Your task to perform on an android device: open device folders in google photos Image 0: 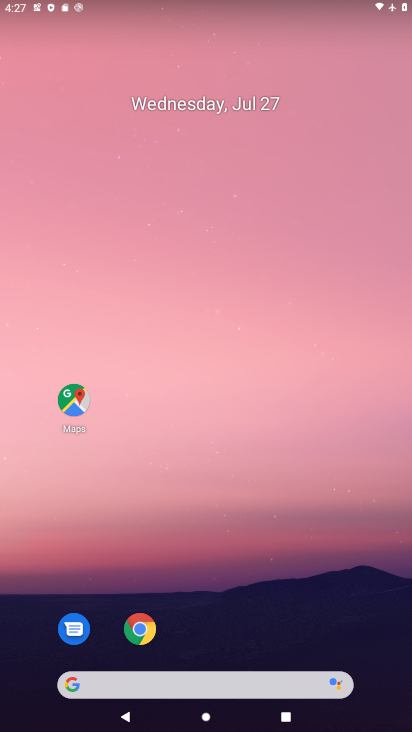
Step 0: drag from (247, 644) to (122, 131)
Your task to perform on an android device: open device folders in google photos Image 1: 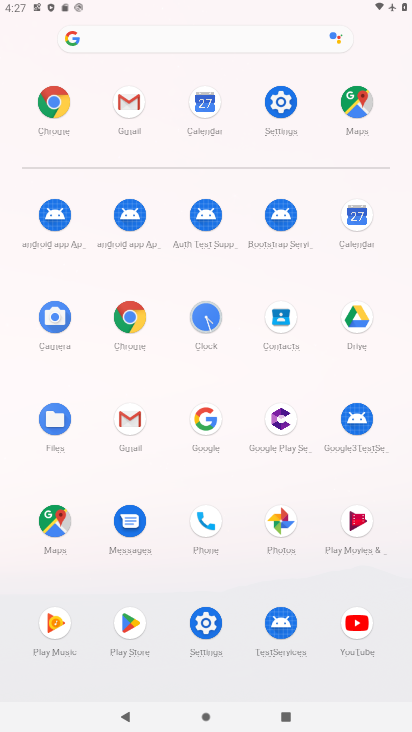
Step 1: click (271, 530)
Your task to perform on an android device: open device folders in google photos Image 2: 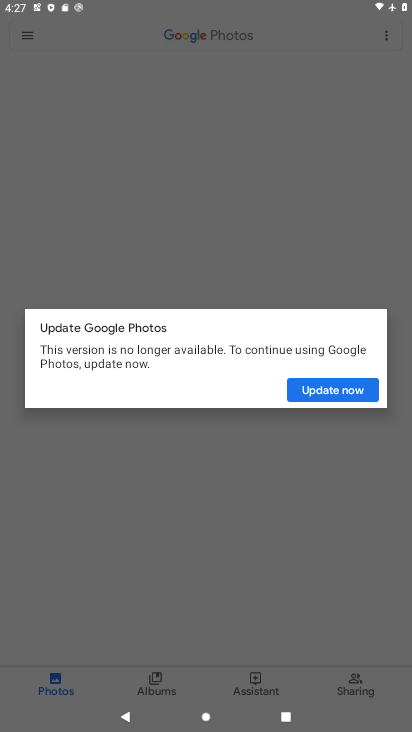
Step 2: click (340, 385)
Your task to perform on an android device: open device folders in google photos Image 3: 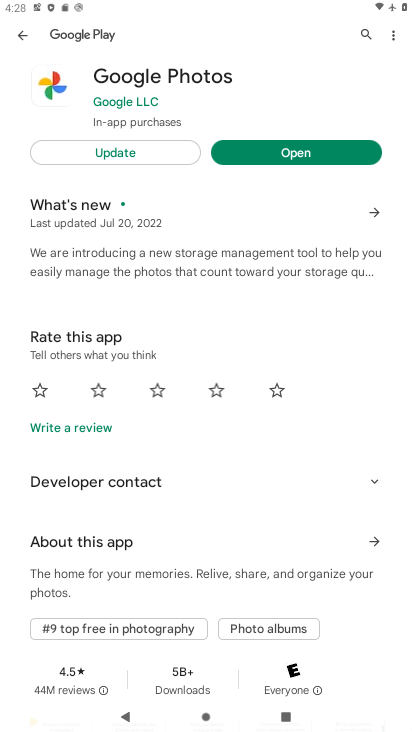
Step 3: click (237, 142)
Your task to perform on an android device: open device folders in google photos Image 4: 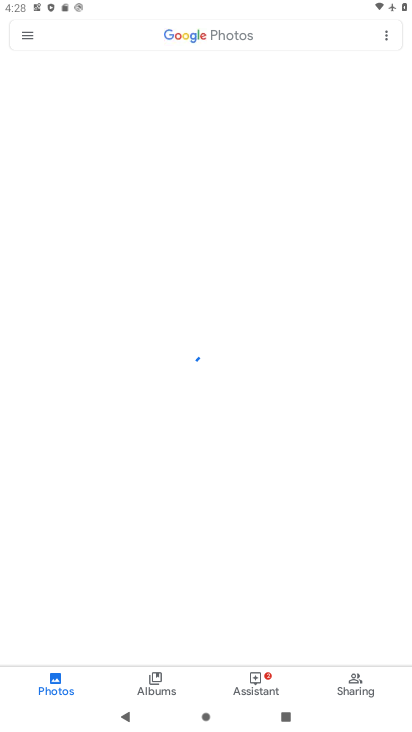
Step 4: click (22, 41)
Your task to perform on an android device: open device folders in google photos Image 5: 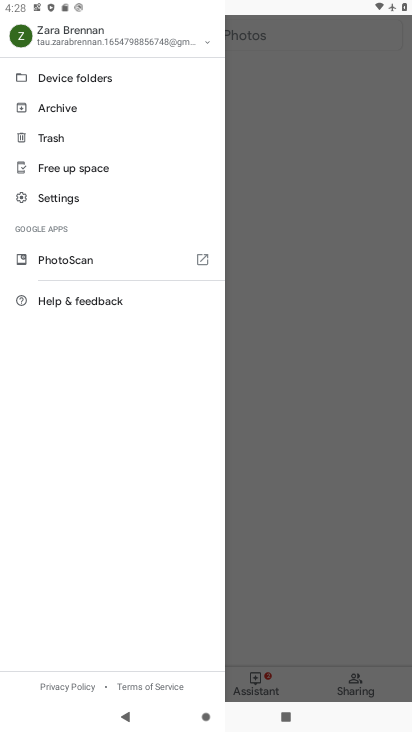
Step 5: click (43, 75)
Your task to perform on an android device: open device folders in google photos Image 6: 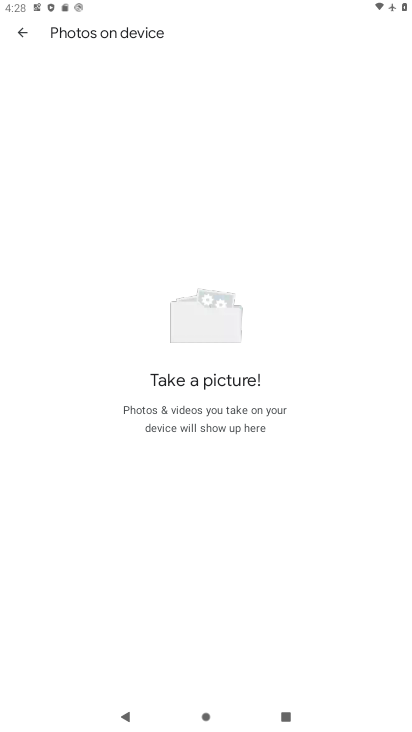
Step 6: task complete